Your task to perform on an android device: Open calendar and show me the fourth week of next month Image 0: 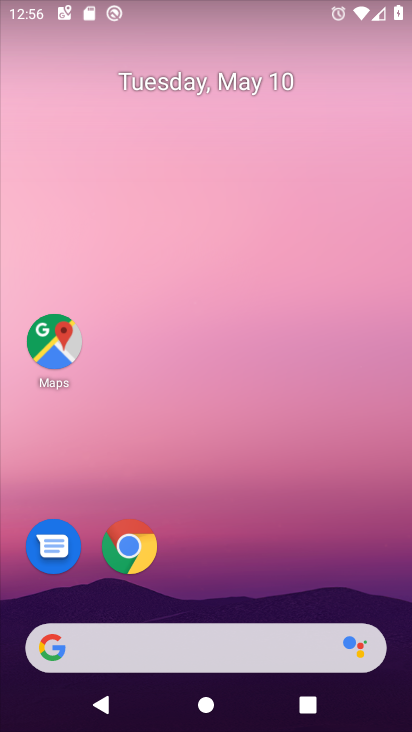
Step 0: press home button
Your task to perform on an android device: Open calendar and show me the fourth week of next month Image 1: 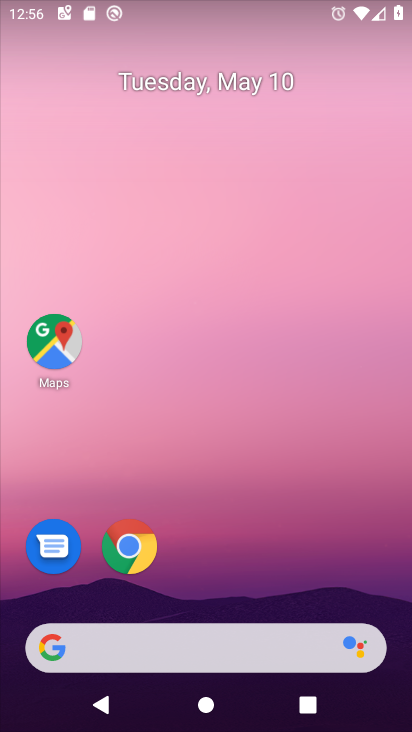
Step 1: drag from (282, 567) to (294, 97)
Your task to perform on an android device: Open calendar and show me the fourth week of next month Image 2: 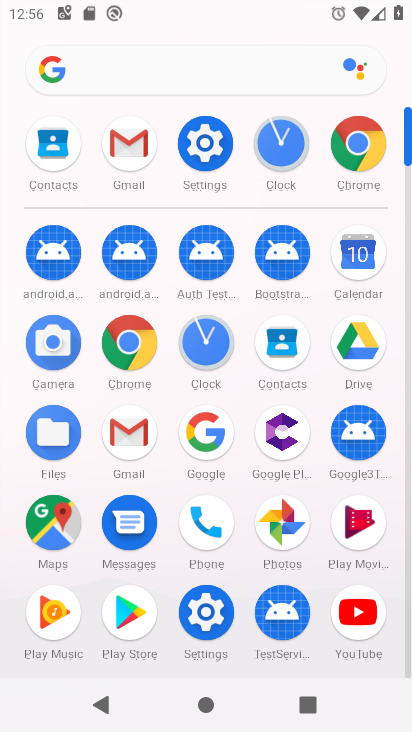
Step 2: click (353, 245)
Your task to perform on an android device: Open calendar and show me the fourth week of next month Image 3: 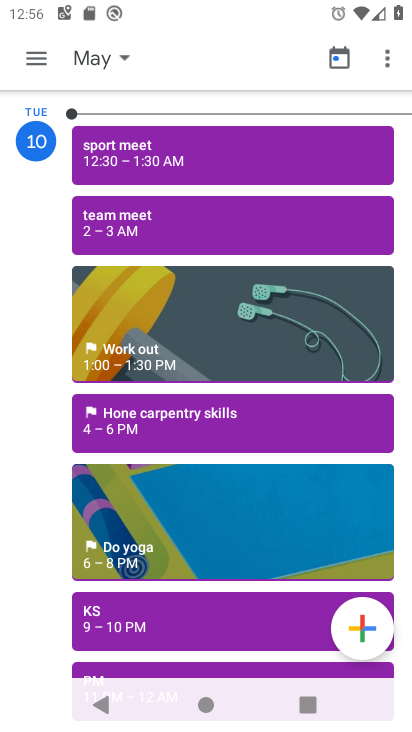
Step 3: click (138, 56)
Your task to perform on an android device: Open calendar and show me the fourth week of next month Image 4: 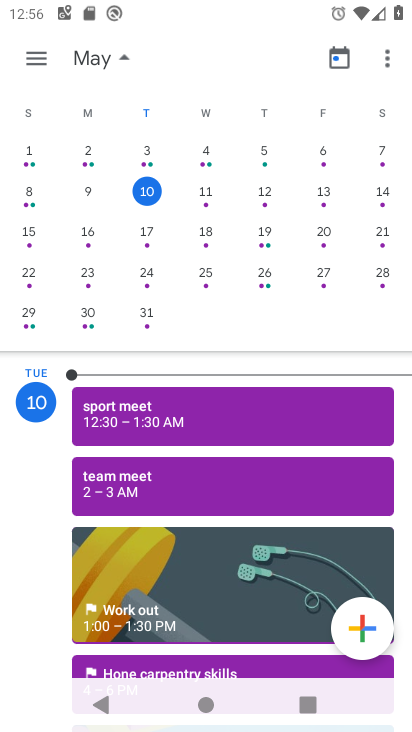
Step 4: drag from (393, 230) to (12, 308)
Your task to perform on an android device: Open calendar and show me the fourth week of next month Image 5: 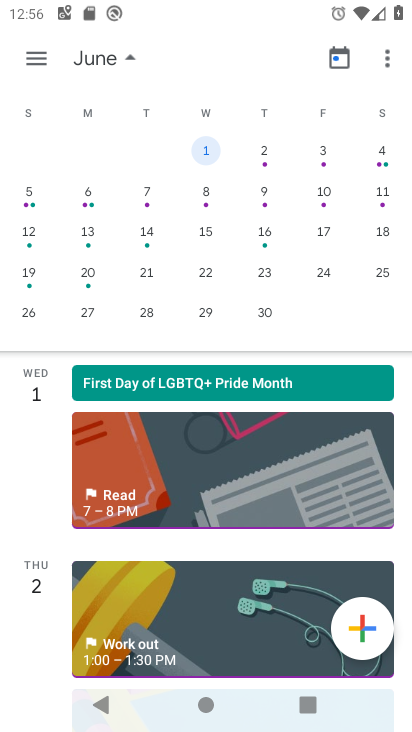
Step 5: click (220, 276)
Your task to perform on an android device: Open calendar and show me the fourth week of next month Image 6: 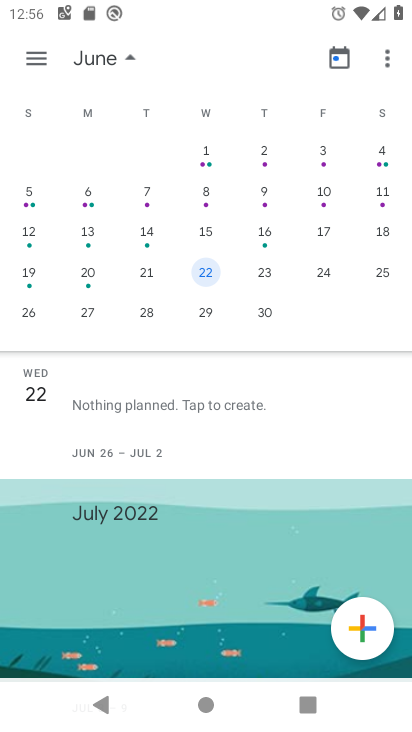
Step 6: task complete